Your task to perform on an android device: turn on the 12-hour format for clock Image 0: 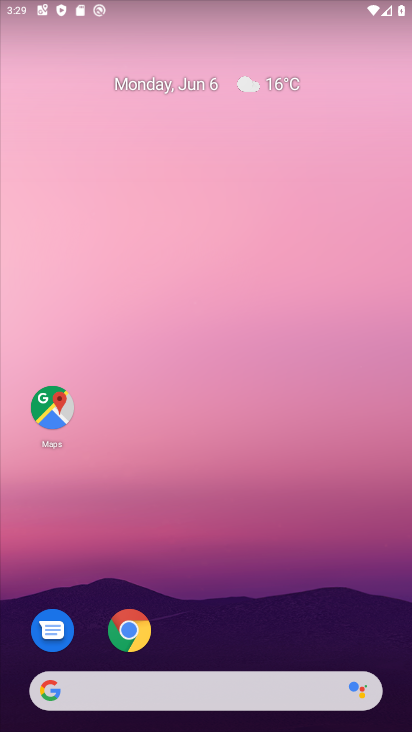
Step 0: drag from (301, 629) to (331, 137)
Your task to perform on an android device: turn on the 12-hour format for clock Image 1: 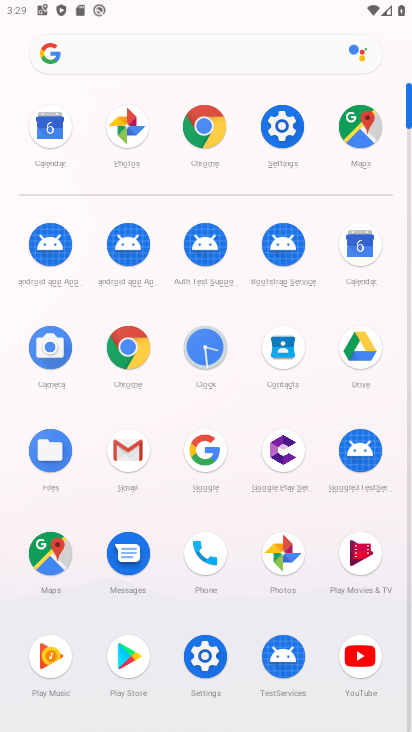
Step 1: click (208, 337)
Your task to perform on an android device: turn on the 12-hour format for clock Image 2: 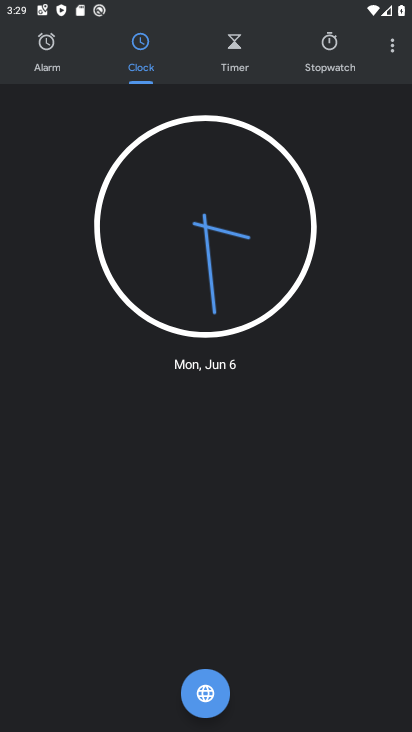
Step 2: click (385, 54)
Your task to perform on an android device: turn on the 12-hour format for clock Image 3: 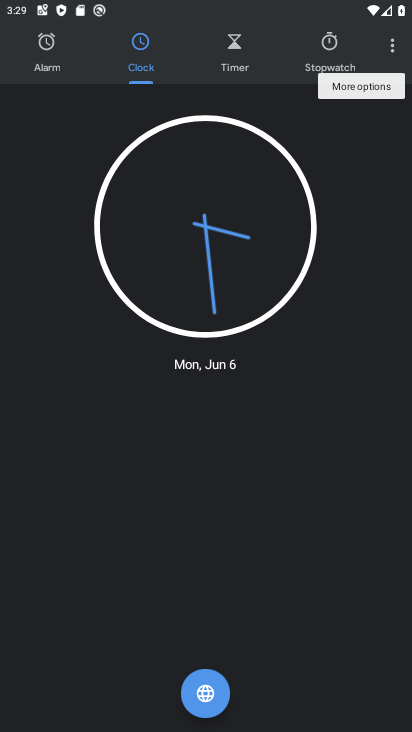
Step 3: click (389, 39)
Your task to perform on an android device: turn on the 12-hour format for clock Image 4: 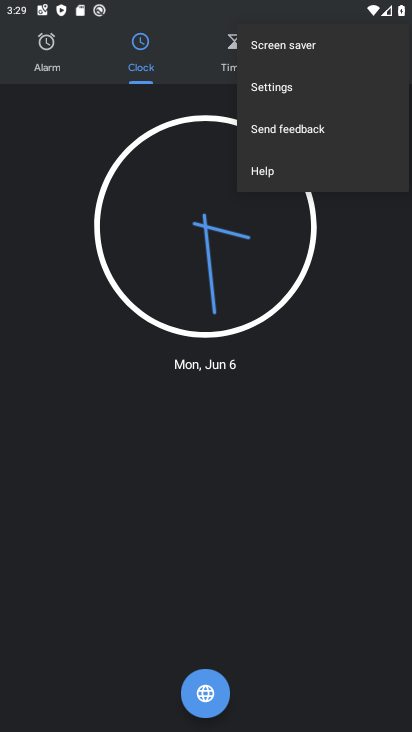
Step 4: click (290, 93)
Your task to perform on an android device: turn on the 12-hour format for clock Image 5: 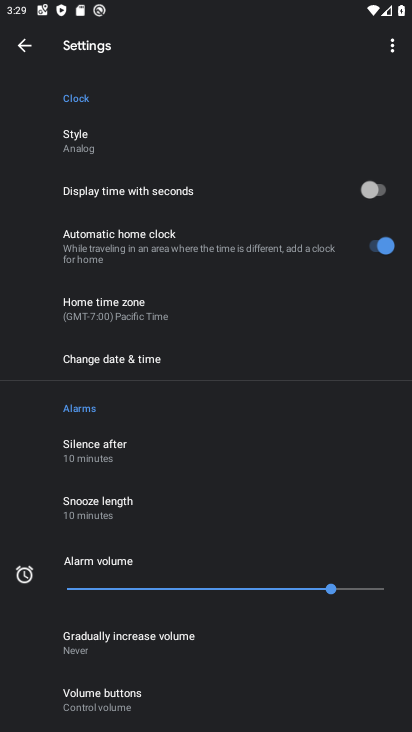
Step 5: click (126, 361)
Your task to perform on an android device: turn on the 12-hour format for clock Image 6: 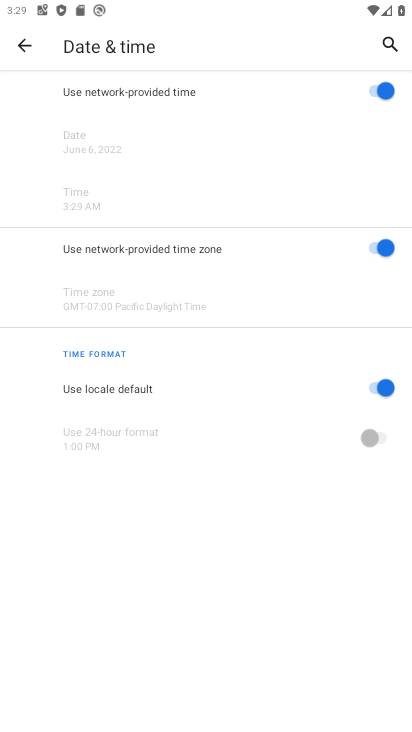
Step 6: task complete